Your task to perform on an android device: Open Wikipedia Image 0: 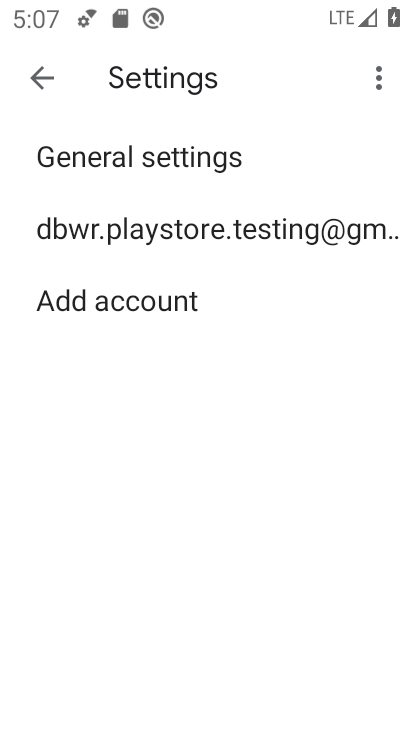
Step 0: press home button
Your task to perform on an android device: Open Wikipedia Image 1: 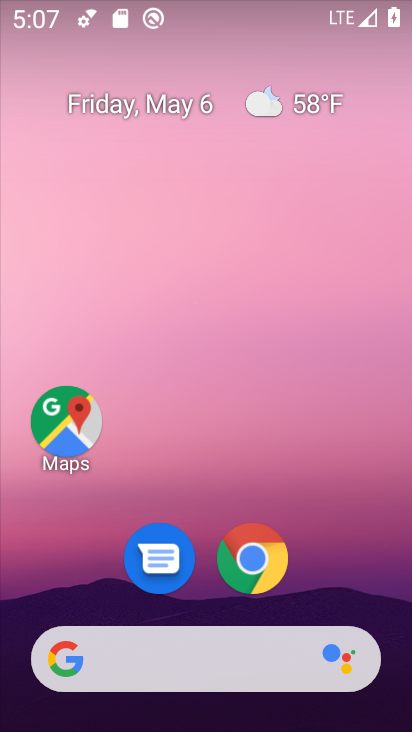
Step 1: drag from (315, 636) to (304, 84)
Your task to perform on an android device: Open Wikipedia Image 2: 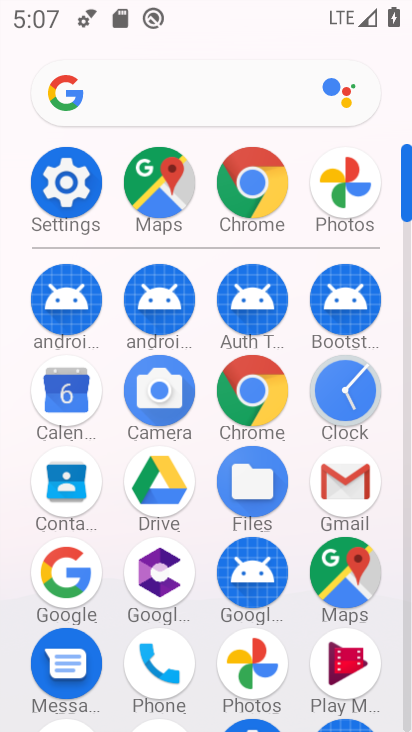
Step 2: click (254, 395)
Your task to perform on an android device: Open Wikipedia Image 3: 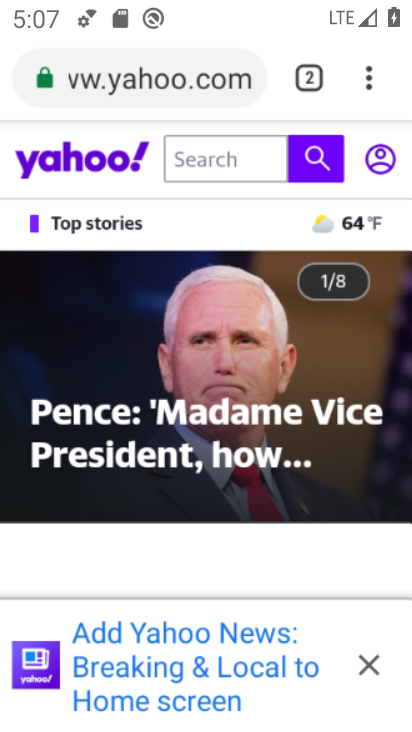
Step 3: click (180, 75)
Your task to perform on an android device: Open Wikipedia Image 4: 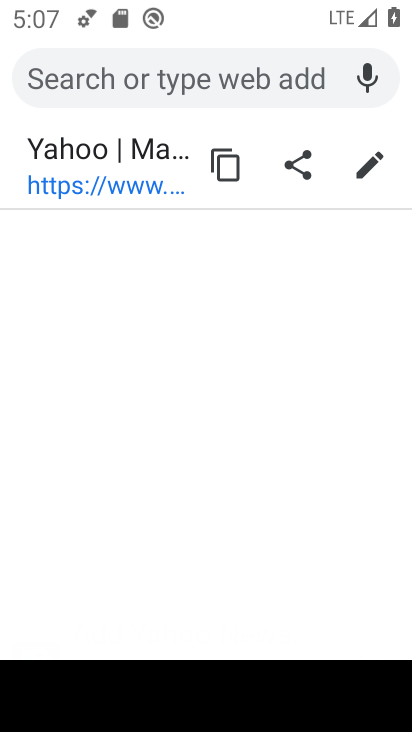
Step 4: type "wikipedia"
Your task to perform on an android device: Open Wikipedia Image 5: 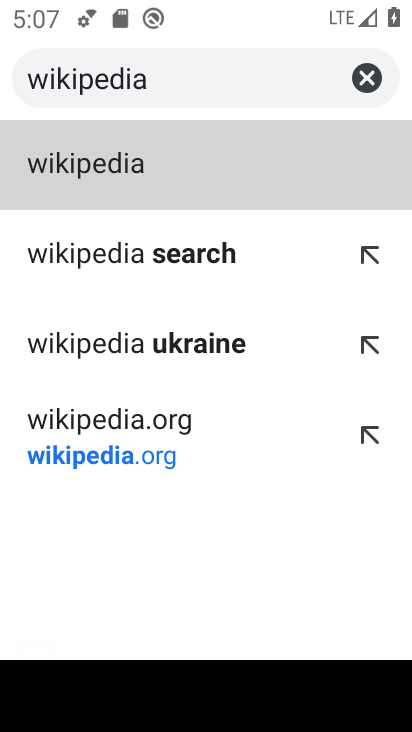
Step 5: click (165, 177)
Your task to perform on an android device: Open Wikipedia Image 6: 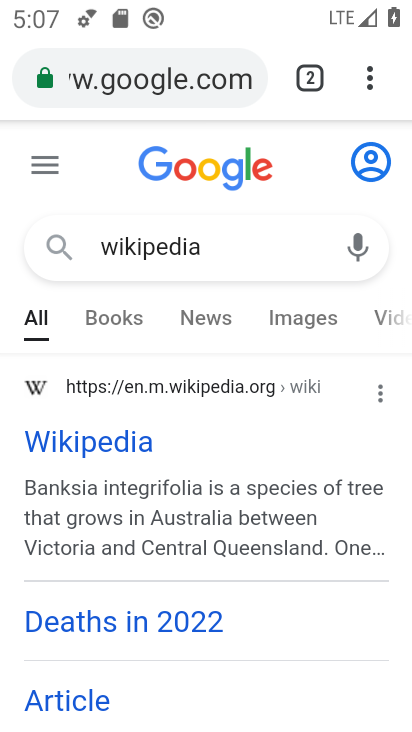
Step 6: task complete